Your task to perform on an android device: toggle wifi Image 0: 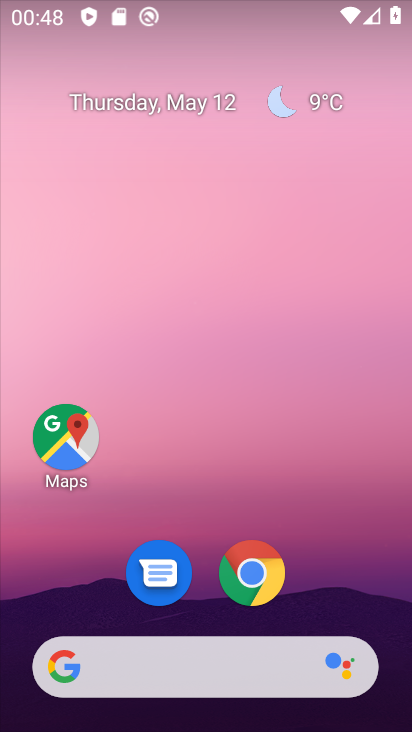
Step 0: drag from (286, 601) to (13, 164)
Your task to perform on an android device: toggle wifi Image 1: 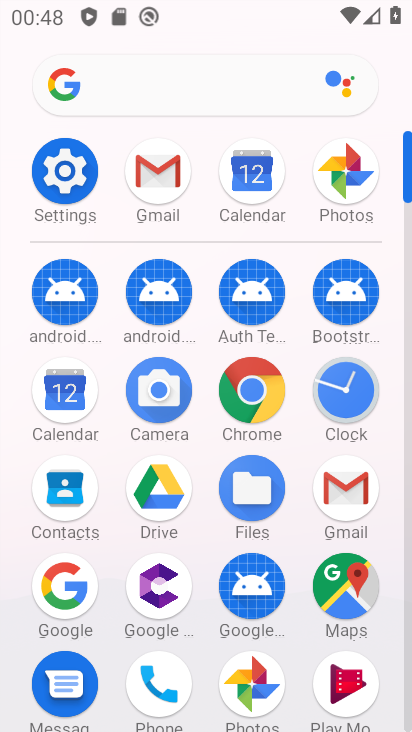
Step 1: click (63, 186)
Your task to perform on an android device: toggle wifi Image 2: 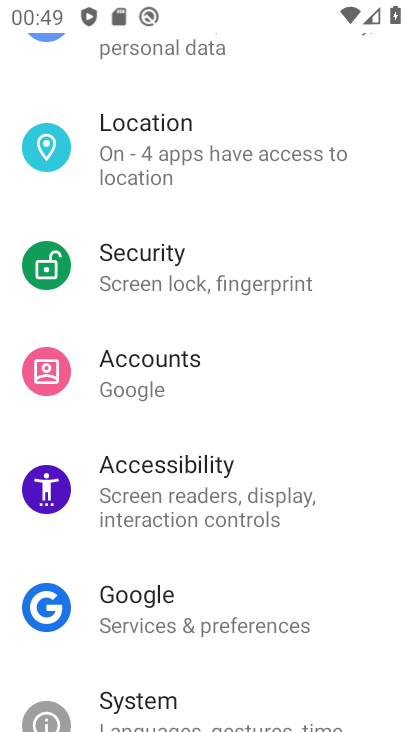
Step 2: drag from (187, 178) to (158, 579)
Your task to perform on an android device: toggle wifi Image 3: 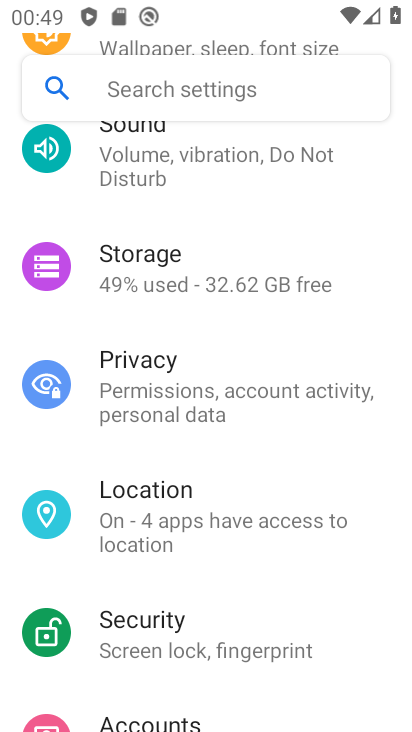
Step 3: drag from (160, 217) to (119, 729)
Your task to perform on an android device: toggle wifi Image 4: 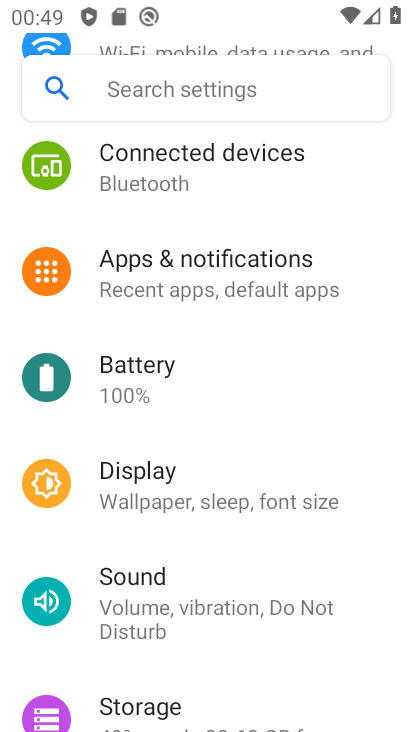
Step 4: drag from (209, 224) to (115, 718)
Your task to perform on an android device: toggle wifi Image 5: 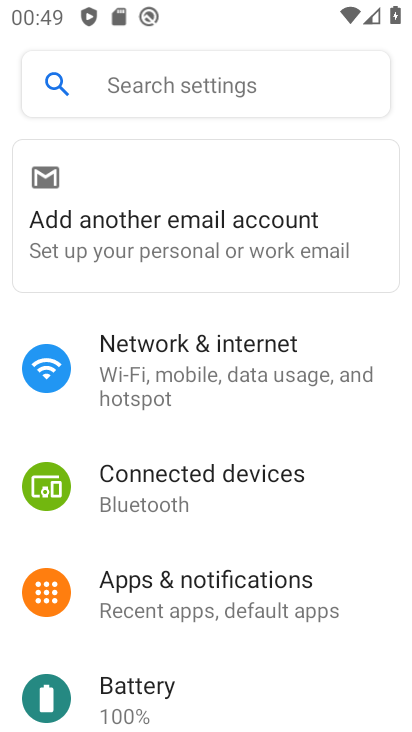
Step 5: click (211, 380)
Your task to perform on an android device: toggle wifi Image 6: 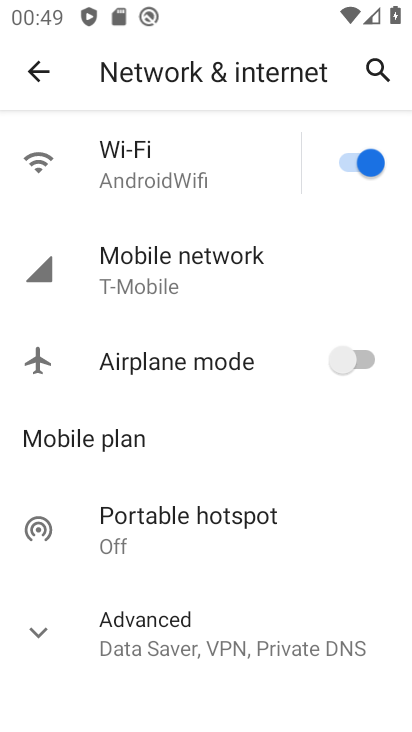
Step 6: click (161, 160)
Your task to perform on an android device: toggle wifi Image 7: 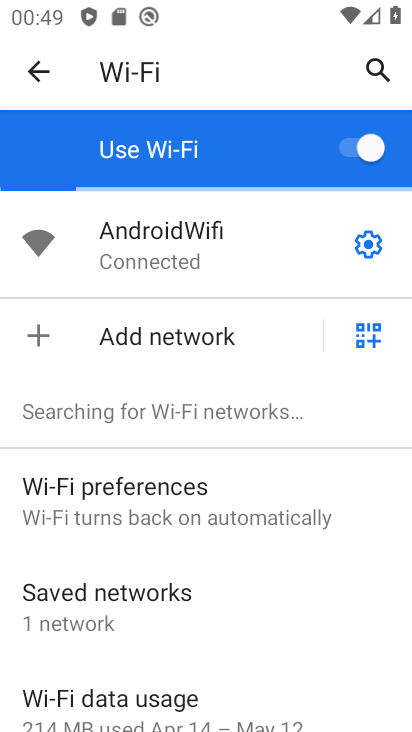
Step 7: click (331, 155)
Your task to perform on an android device: toggle wifi Image 8: 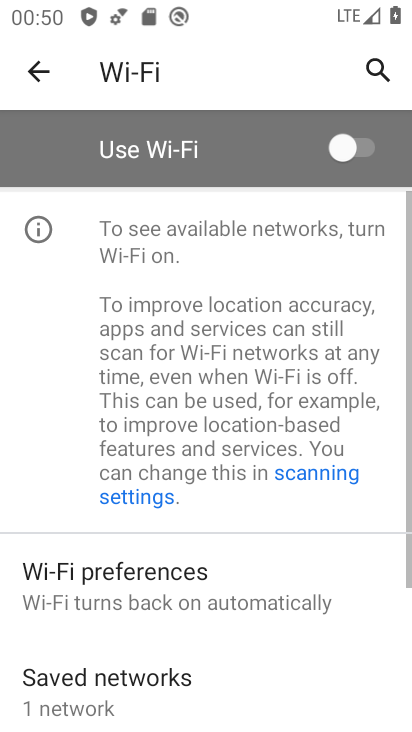
Step 8: task complete